Your task to perform on an android device: toggle improve location accuracy Image 0: 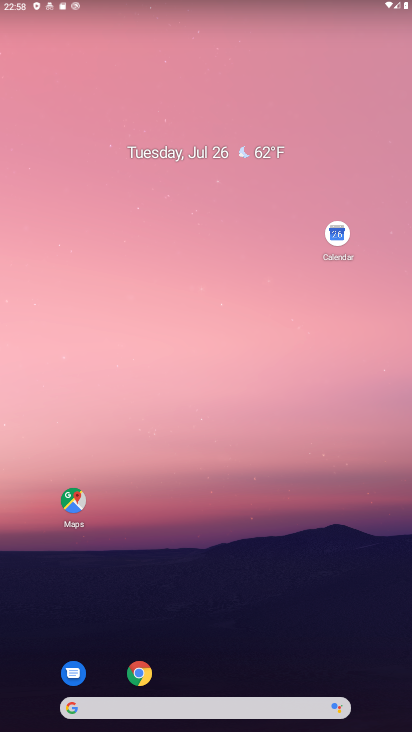
Step 0: drag from (279, 602) to (291, 161)
Your task to perform on an android device: toggle improve location accuracy Image 1: 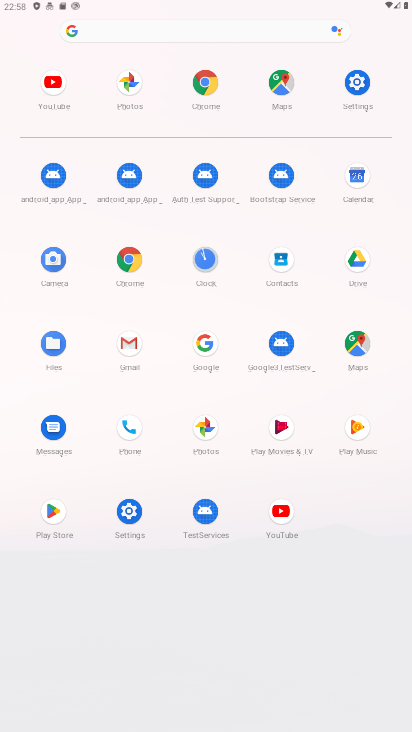
Step 1: click (130, 515)
Your task to perform on an android device: toggle improve location accuracy Image 2: 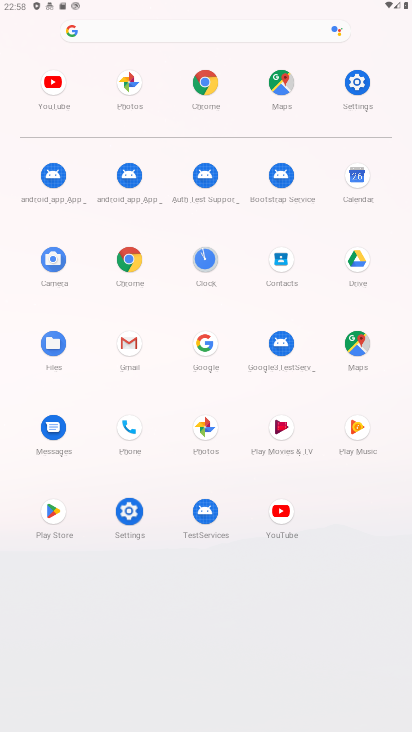
Step 2: click (135, 509)
Your task to perform on an android device: toggle improve location accuracy Image 3: 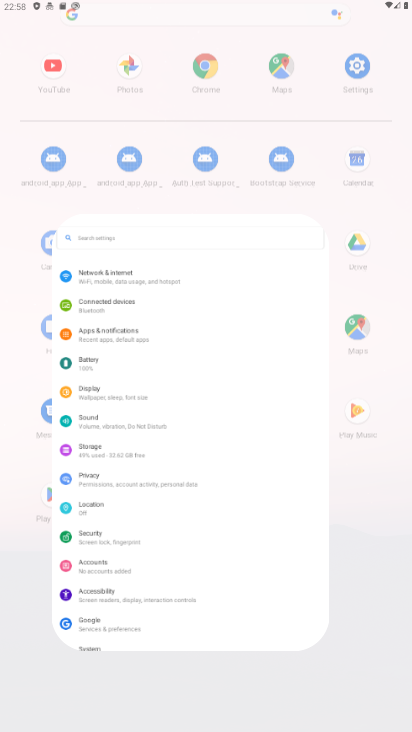
Step 3: click (137, 510)
Your task to perform on an android device: toggle improve location accuracy Image 4: 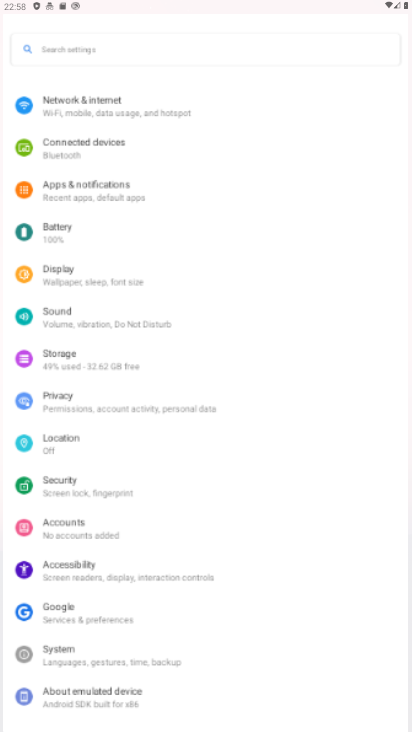
Step 4: click (137, 510)
Your task to perform on an android device: toggle improve location accuracy Image 5: 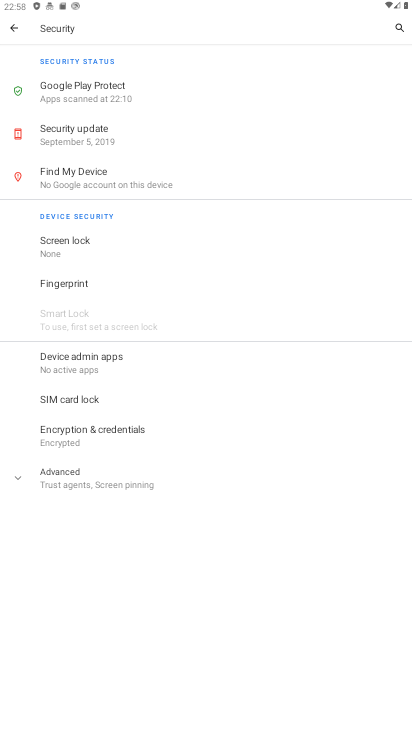
Step 5: click (13, 34)
Your task to perform on an android device: toggle improve location accuracy Image 6: 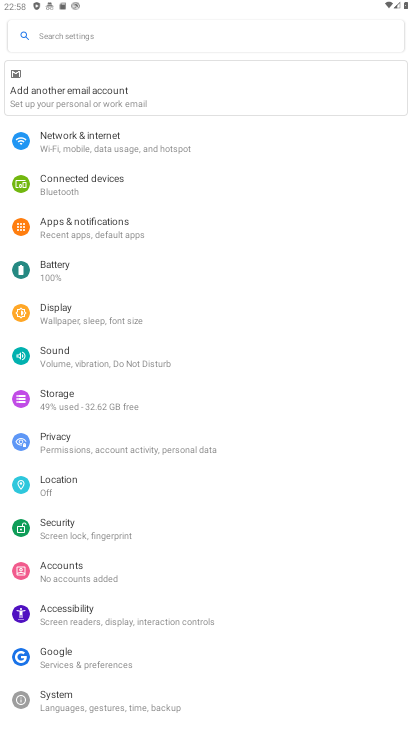
Step 6: click (59, 476)
Your task to perform on an android device: toggle improve location accuracy Image 7: 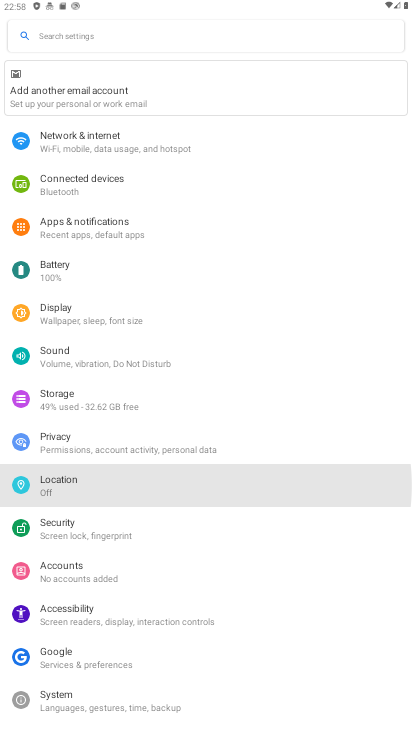
Step 7: click (60, 474)
Your task to perform on an android device: toggle improve location accuracy Image 8: 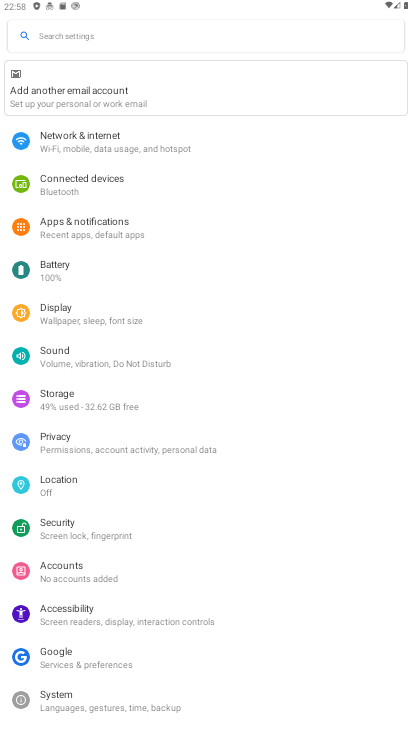
Step 8: click (64, 473)
Your task to perform on an android device: toggle improve location accuracy Image 9: 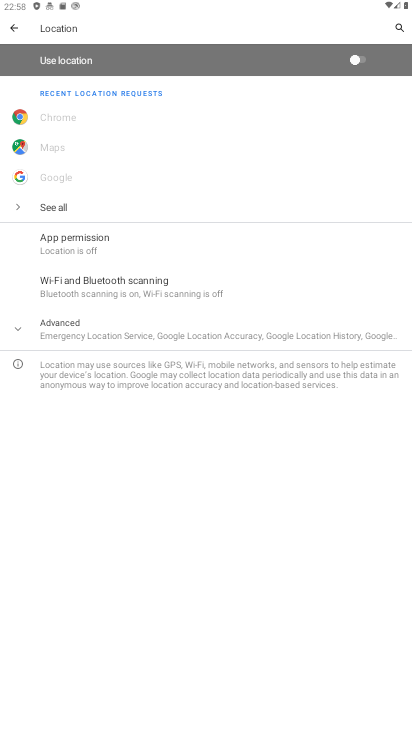
Step 9: click (63, 330)
Your task to perform on an android device: toggle improve location accuracy Image 10: 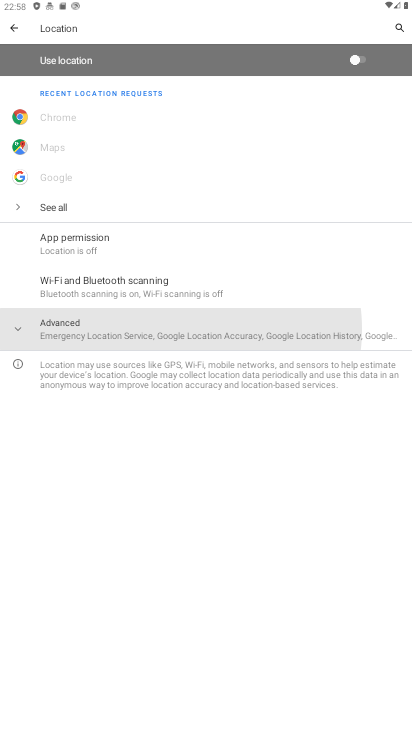
Step 10: click (63, 330)
Your task to perform on an android device: toggle improve location accuracy Image 11: 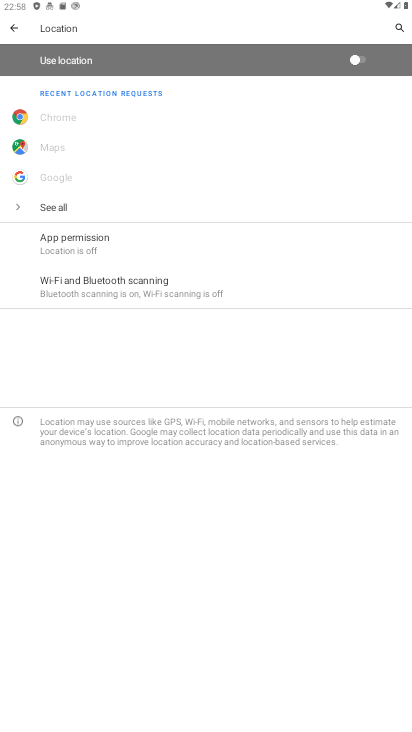
Step 11: click (69, 327)
Your task to perform on an android device: toggle improve location accuracy Image 12: 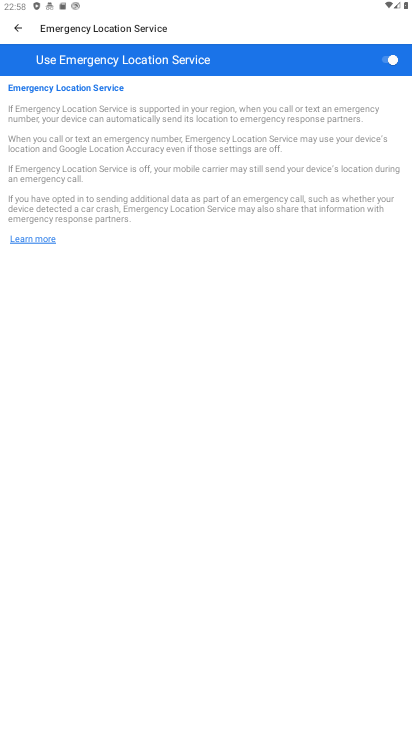
Step 12: click (25, 30)
Your task to perform on an android device: toggle improve location accuracy Image 13: 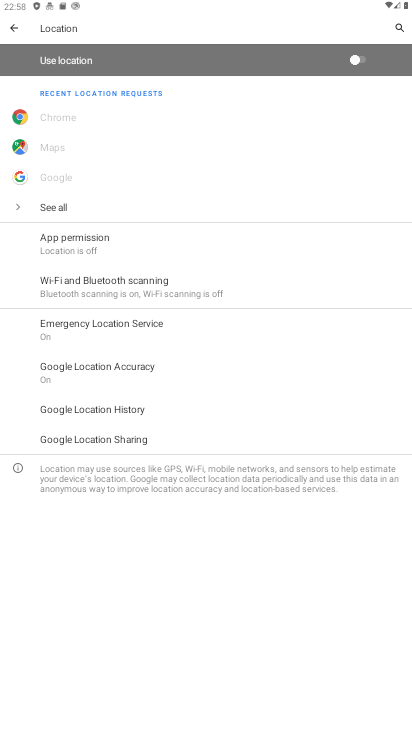
Step 13: click (110, 371)
Your task to perform on an android device: toggle improve location accuracy Image 14: 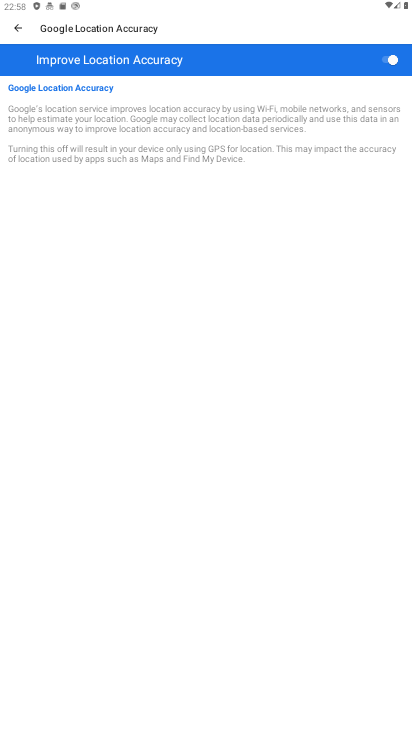
Step 14: click (379, 51)
Your task to perform on an android device: toggle improve location accuracy Image 15: 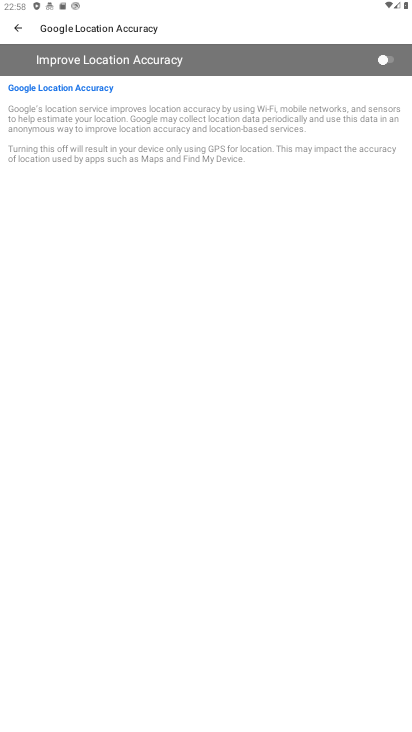
Step 15: task complete